Your task to perform on an android device: delete location history Image 0: 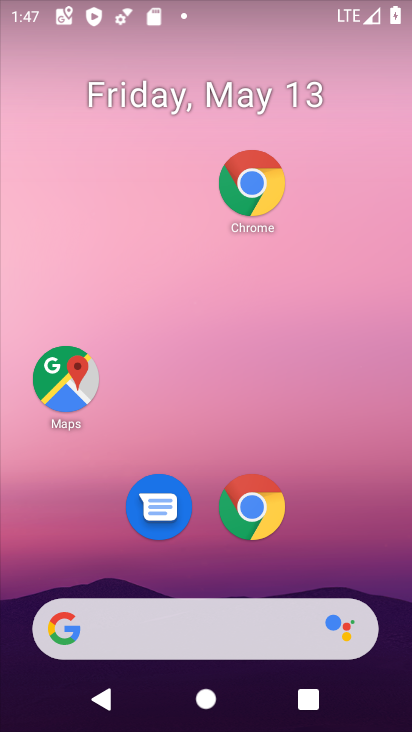
Step 0: drag from (258, 266) to (247, 219)
Your task to perform on an android device: delete location history Image 1: 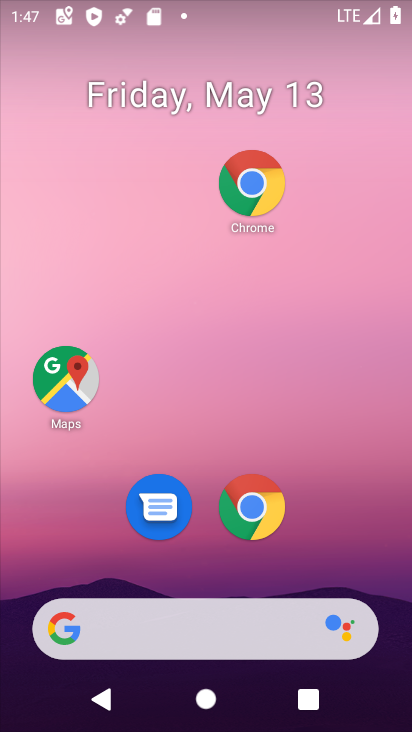
Step 1: drag from (324, 556) to (221, 168)
Your task to perform on an android device: delete location history Image 2: 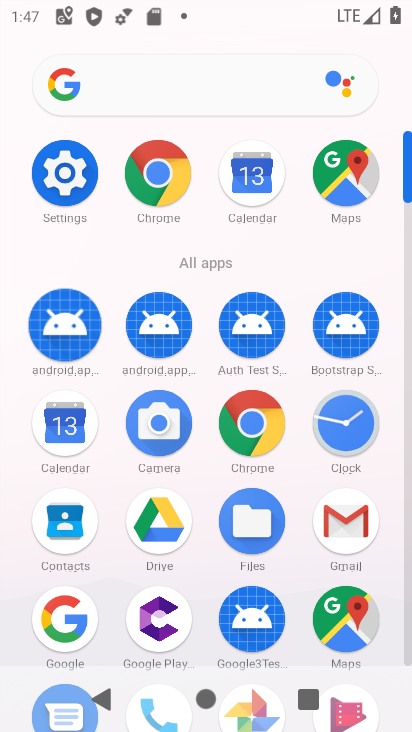
Step 2: click (348, 184)
Your task to perform on an android device: delete location history Image 3: 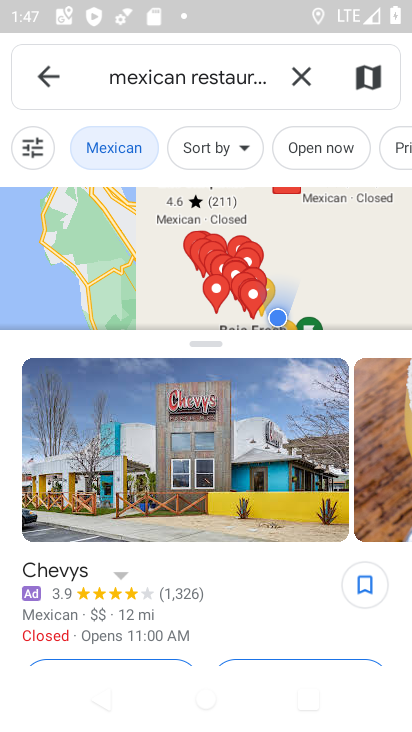
Step 3: click (39, 81)
Your task to perform on an android device: delete location history Image 4: 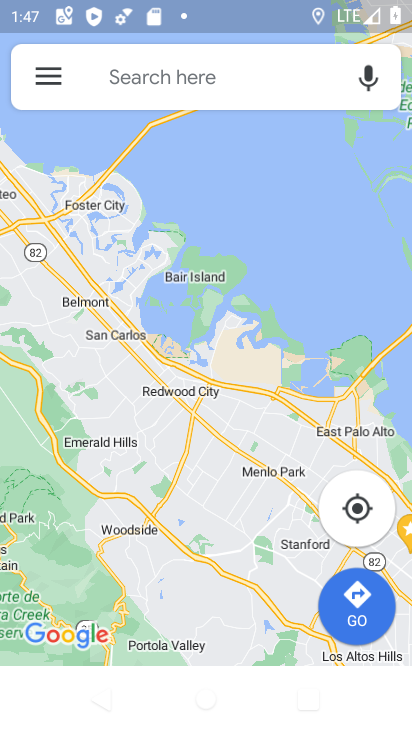
Step 4: click (43, 71)
Your task to perform on an android device: delete location history Image 5: 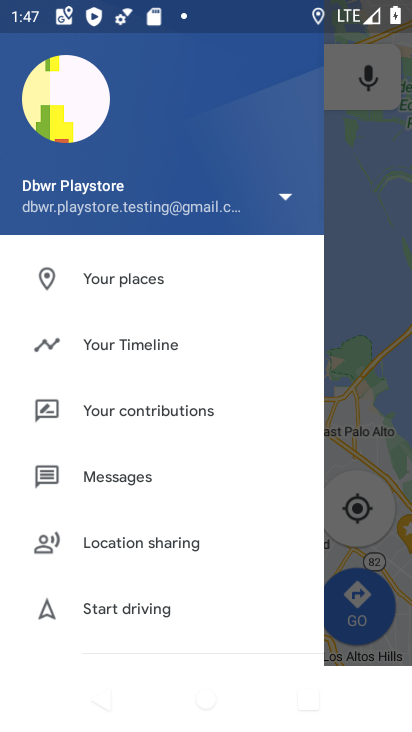
Step 5: click (142, 338)
Your task to perform on an android device: delete location history Image 6: 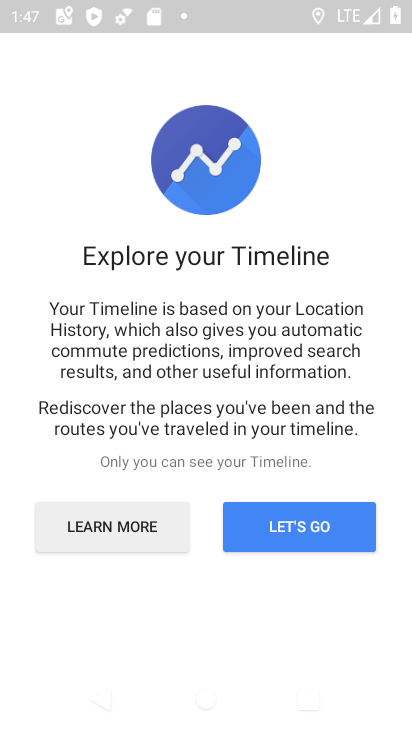
Step 6: click (305, 514)
Your task to perform on an android device: delete location history Image 7: 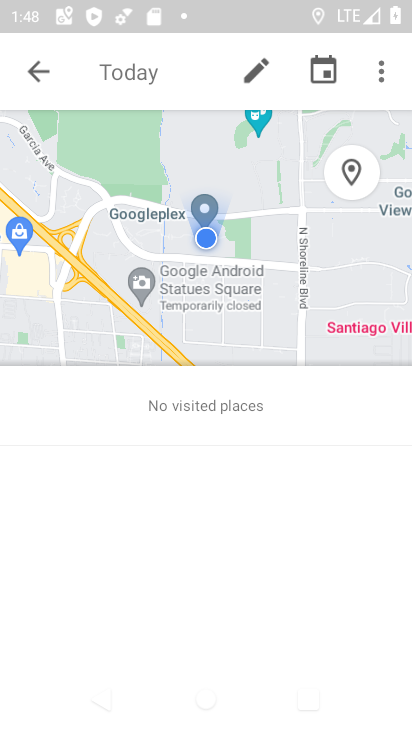
Step 7: click (373, 69)
Your task to perform on an android device: delete location history Image 8: 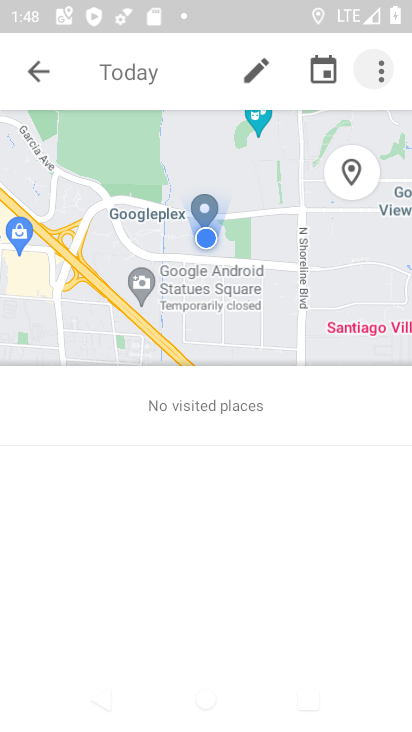
Step 8: click (373, 69)
Your task to perform on an android device: delete location history Image 9: 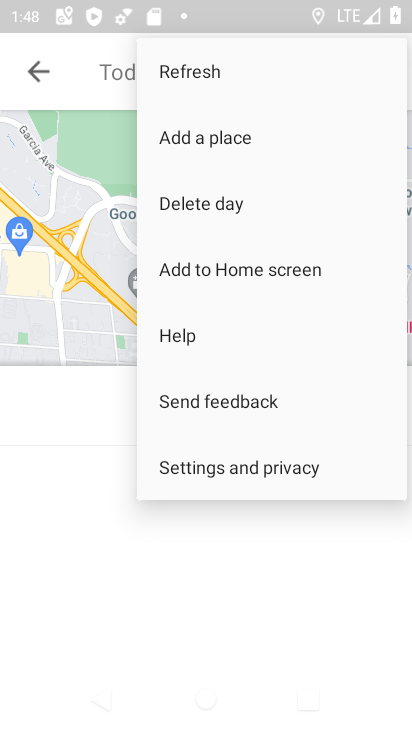
Step 9: click (228, 468)
Your task to perform on an android device: delete location history Image 10: 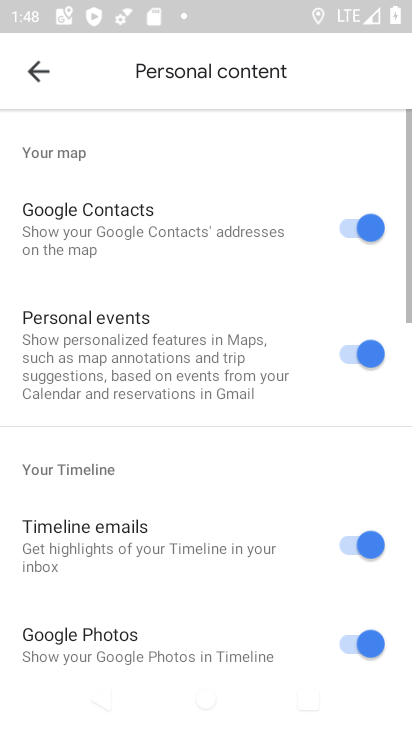
Step 10: click (228, 477)
Your task to perform on an android device: delete location history Image 11: 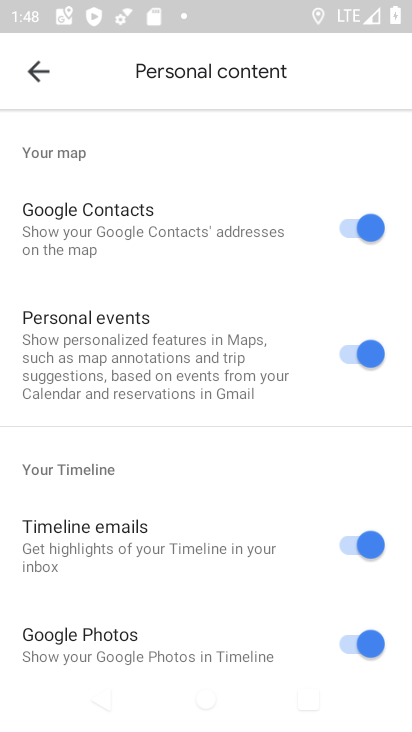
Step 11: click (170, 241)
Your task to perform on an android device: delete location history Image 12: 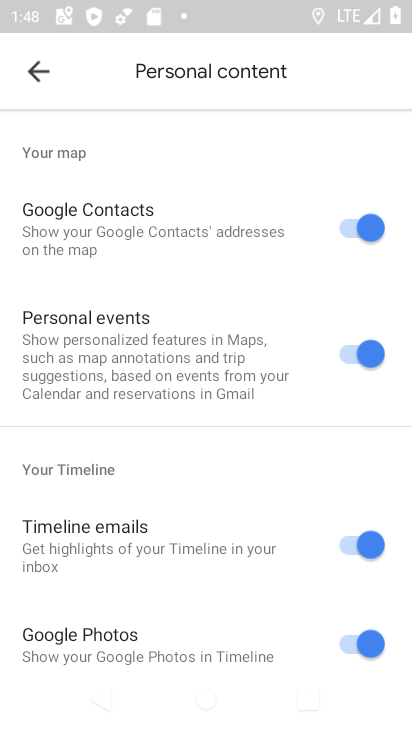
Step 12: drag from (162, 455) to (218, 118)
Your task to perform on an android device: delete location history Image 13: 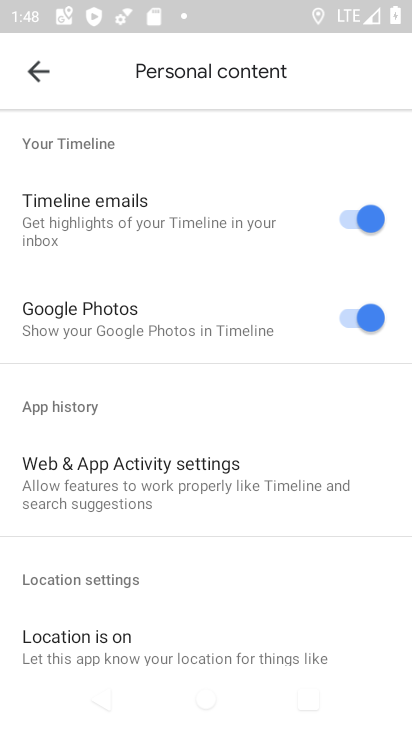
Step 13: drag from (169, 487) to (148, 73)
Your task to perform on an android device: delete location history Image 14: 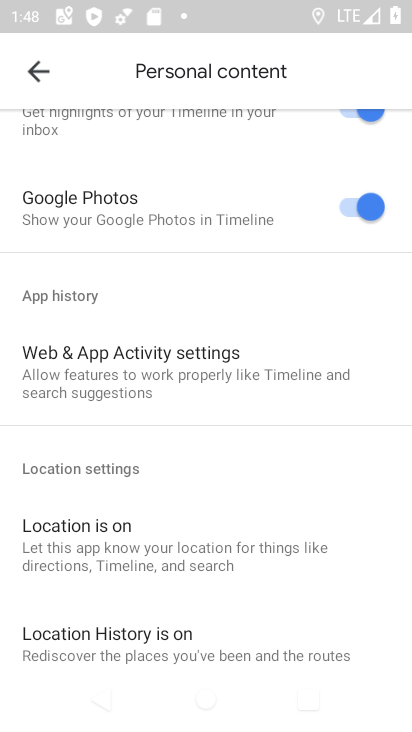
Step 14: click (116, 137)
Your task to perform on an android device: delete location history Image 15: 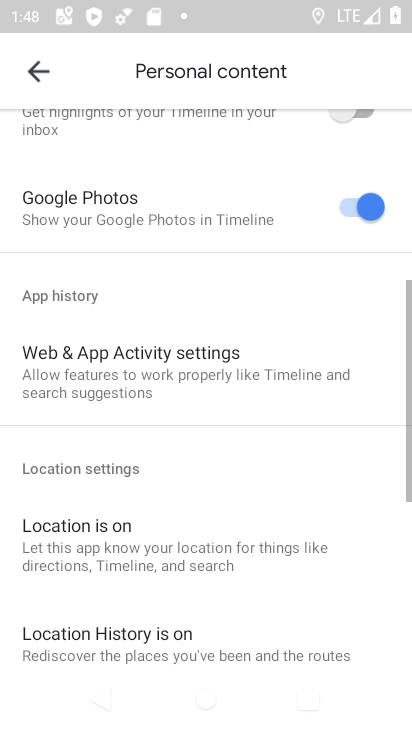
Step 15: drag from (113, 368) to (107, 131)
Your task to perform on an android device: delete location history Image 16: 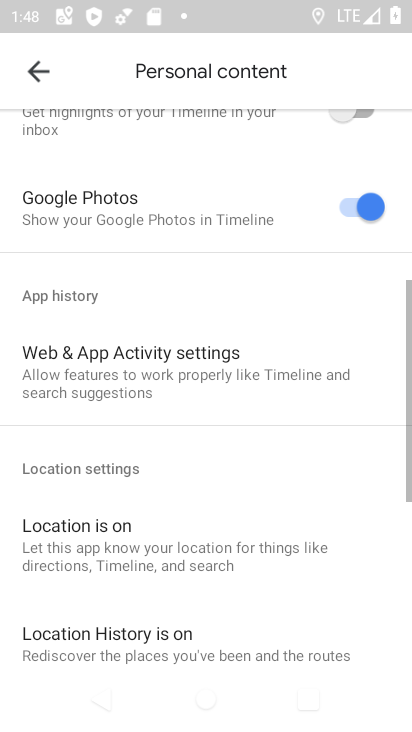
Step 16: drag from (122, 492) to (170, 146)
Your task to perform on an android device: delete location history Image 17: 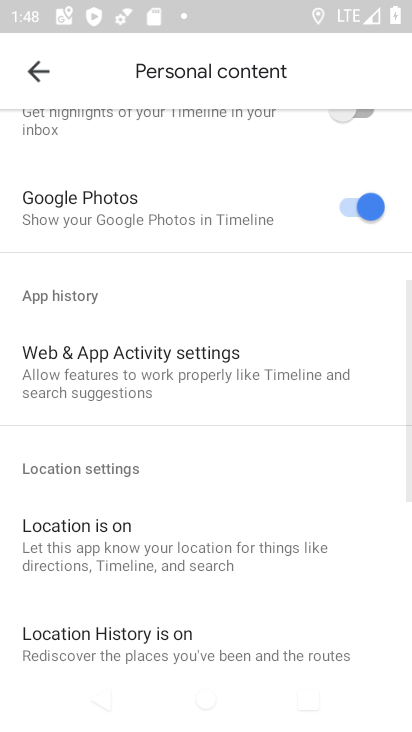
Step 17: drag from (170, 559) to (265, 1)
Your task to perform on an android device: delete location history Image 18: 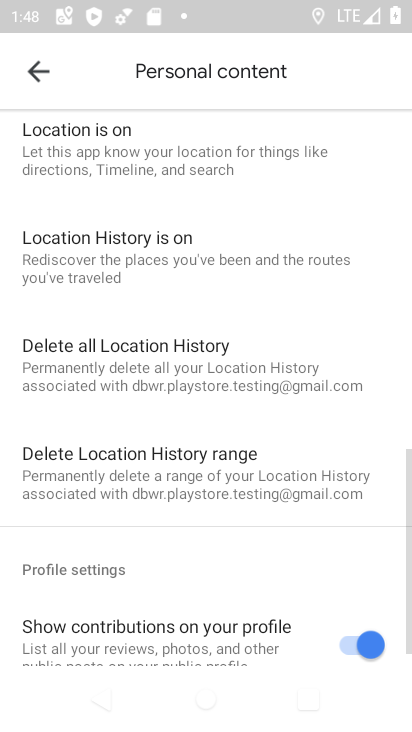
Step 18: click (128, 639)
Your task to perform on an android device: delete location history Image 19: 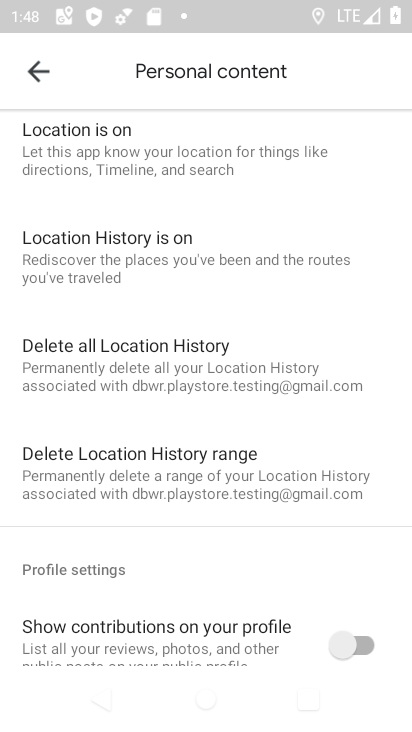
Step 19: click (114, 356)
Your task to perform on an android device: delete location history Image 20: 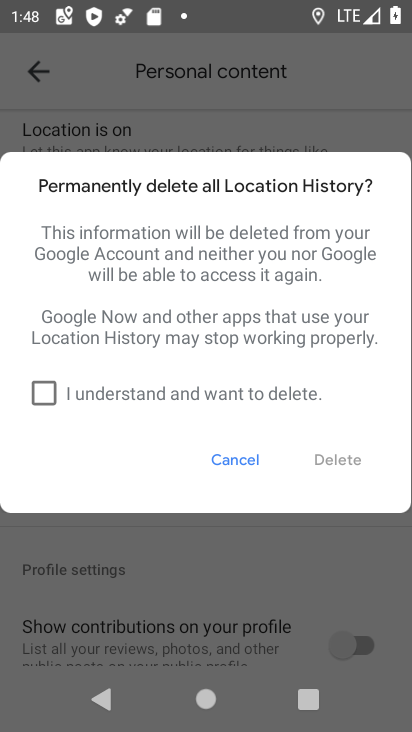
Step 20: click (112, 358)
Your task to perform on an android device: delete location history Image 21: 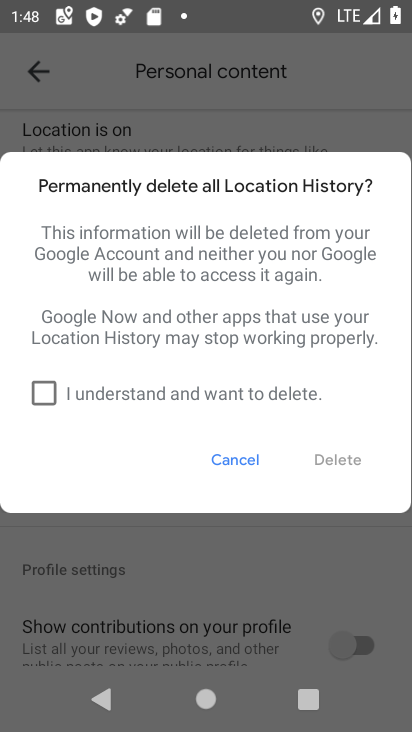
Step 21: click (36, 401)
Your task to perform on an android device: delete location history Image 22: 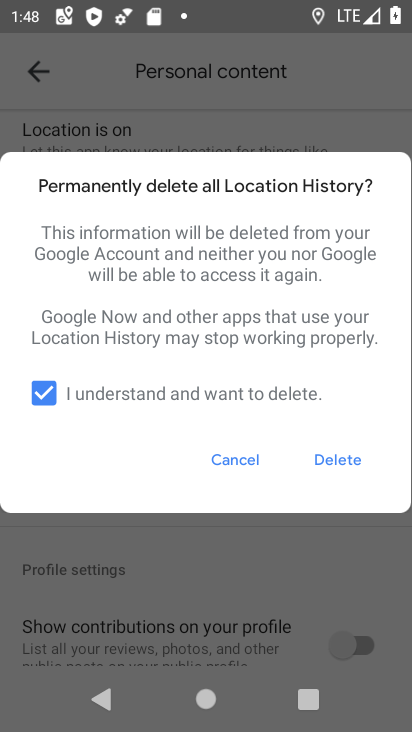
Step 22: task complete